Your task to perform on an android device: What's the weather? Image 0: 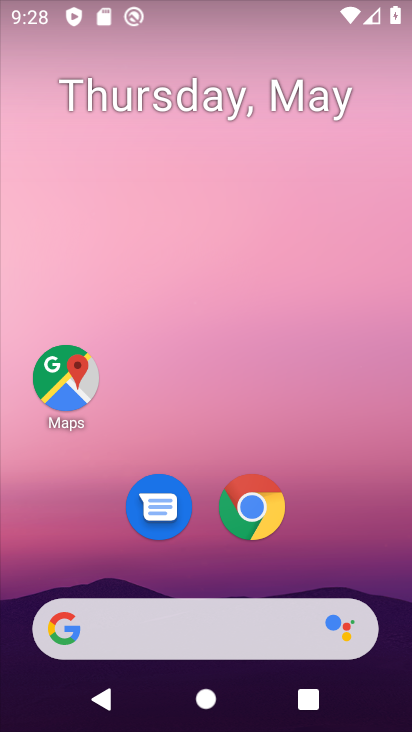
Step 0: drag from (403, 582) to (333, 313)
Your task to perform on an android device: What's the weather? Image 1: 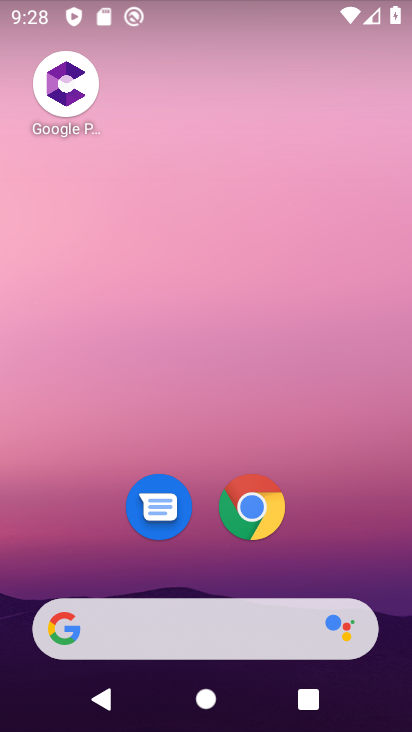
Step 1: click (249, 504)
Your task to perform on an android device: What's the weather? Image 2: 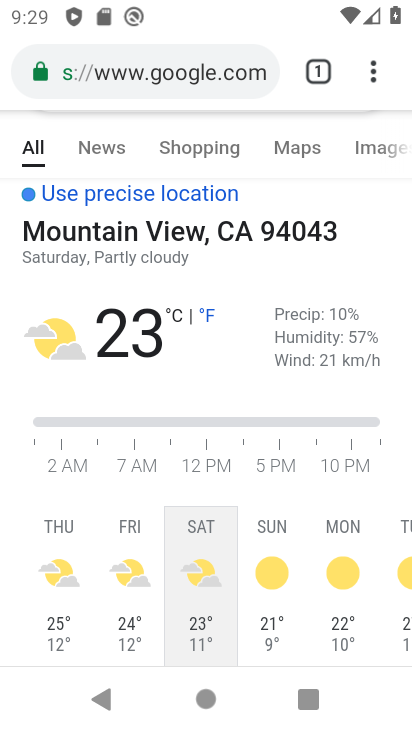
Step 2: click (174, 64)
Your task to perform on an android device: What's the weather? Image 3: 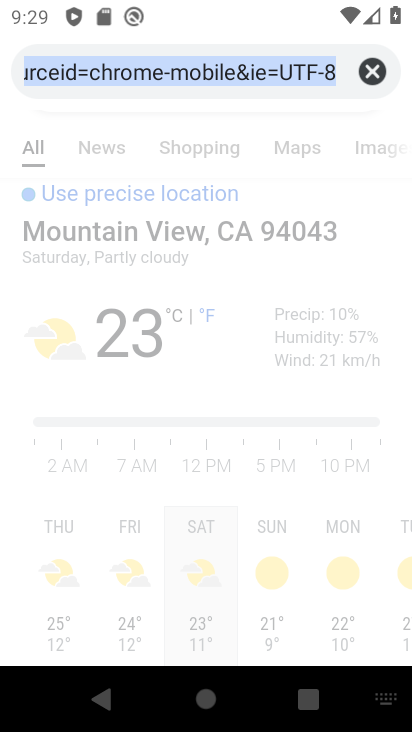
Step 3: type "What's the weather?"
Your task to perform on an android device: What's the weather? Image 4: 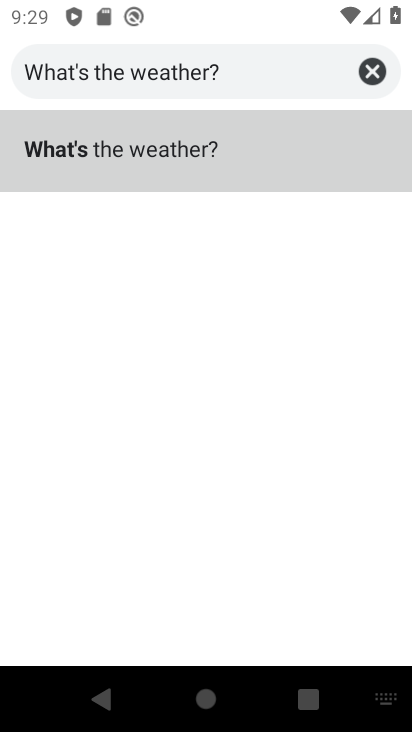
Step 4: click (156, 153)
Your task to perform on an android device: What's the weather? Image 5: 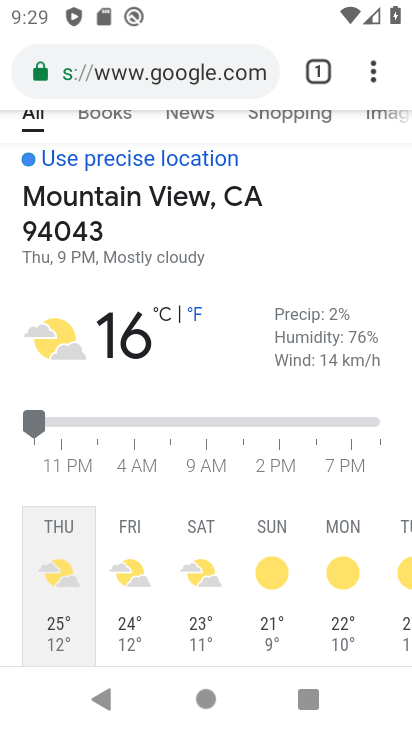
Step 5: task complete